Your task to perform on an android device: install app "Spotify" Image 0: 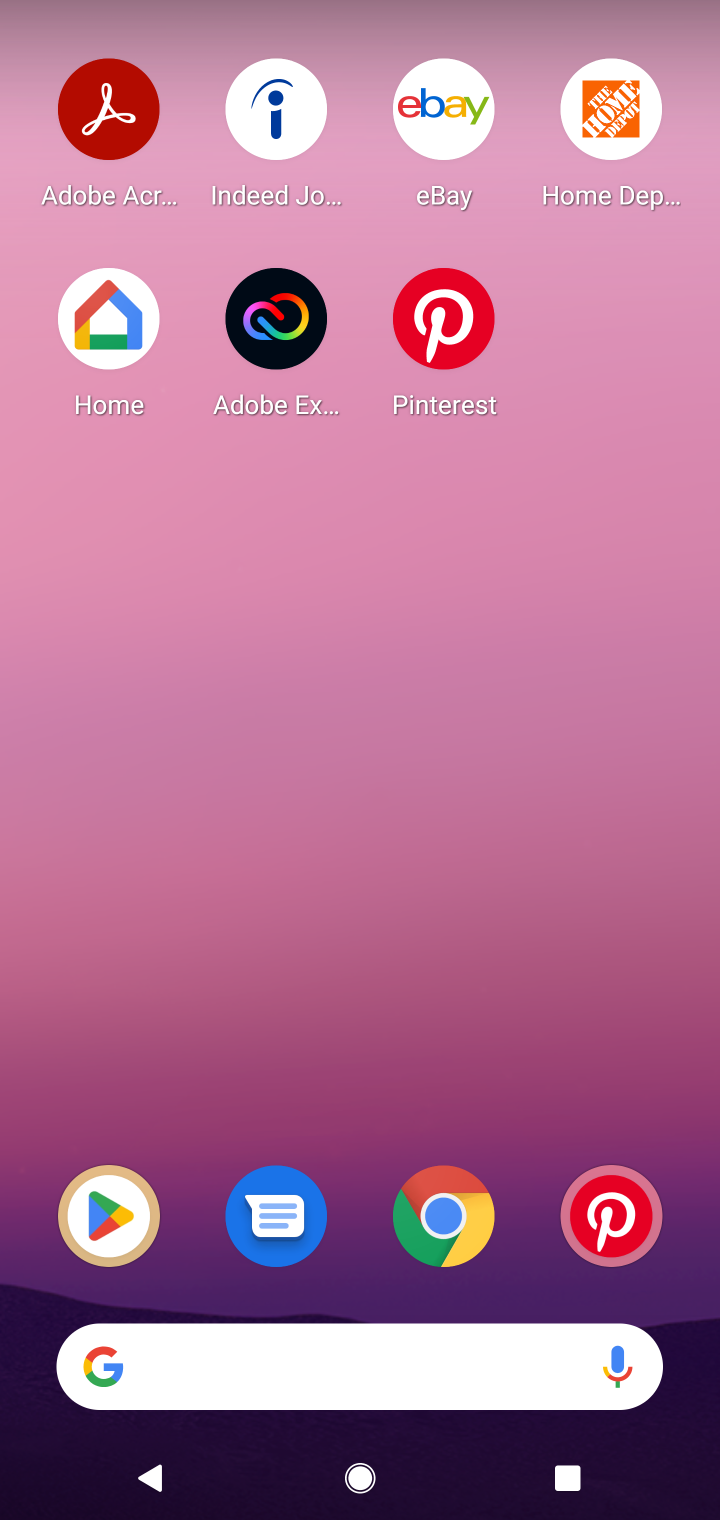
Step 0: click (101, 1259)
Your task to perform on an android device: install app "Spotify" Image 1: 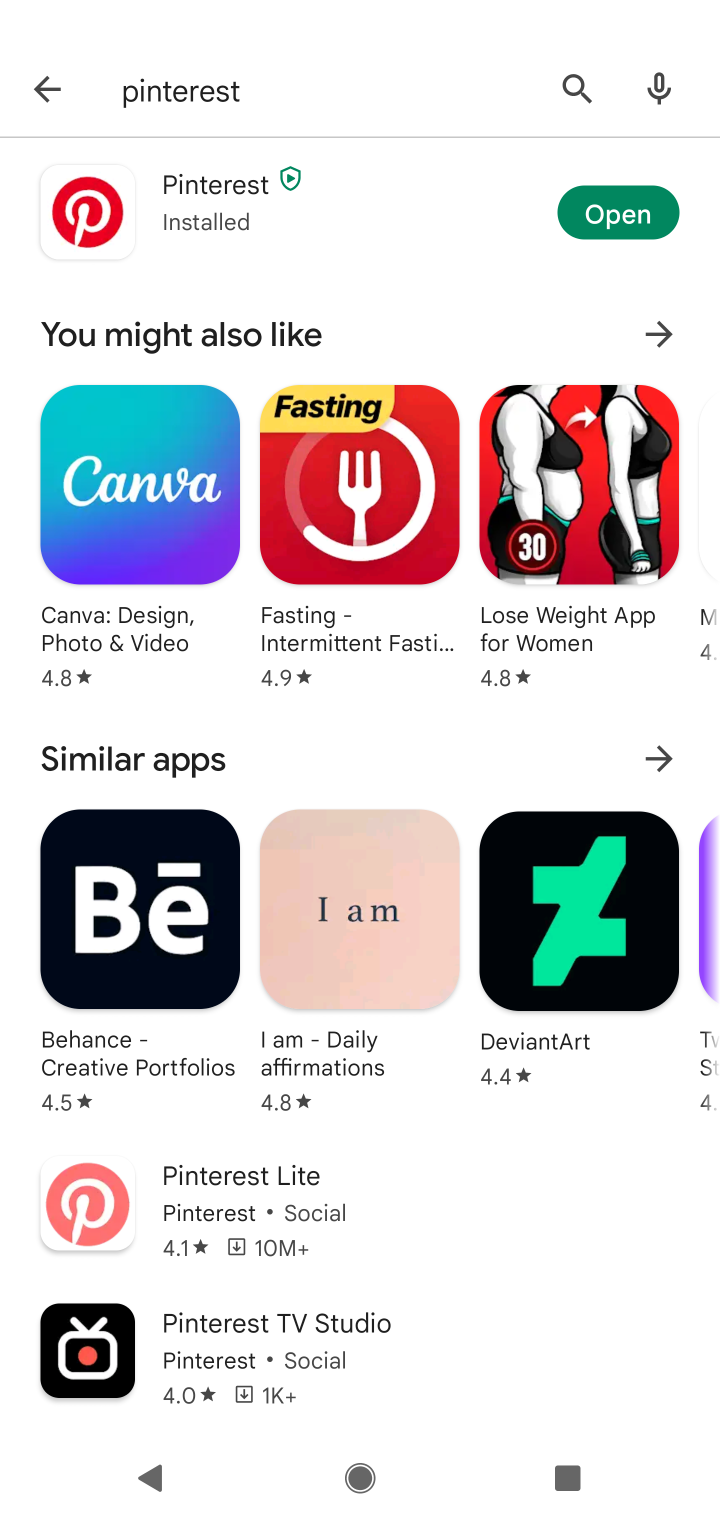
Step 1: click (587, 209)
Your task to perform on an android device: install app "Spotify" Image 2: 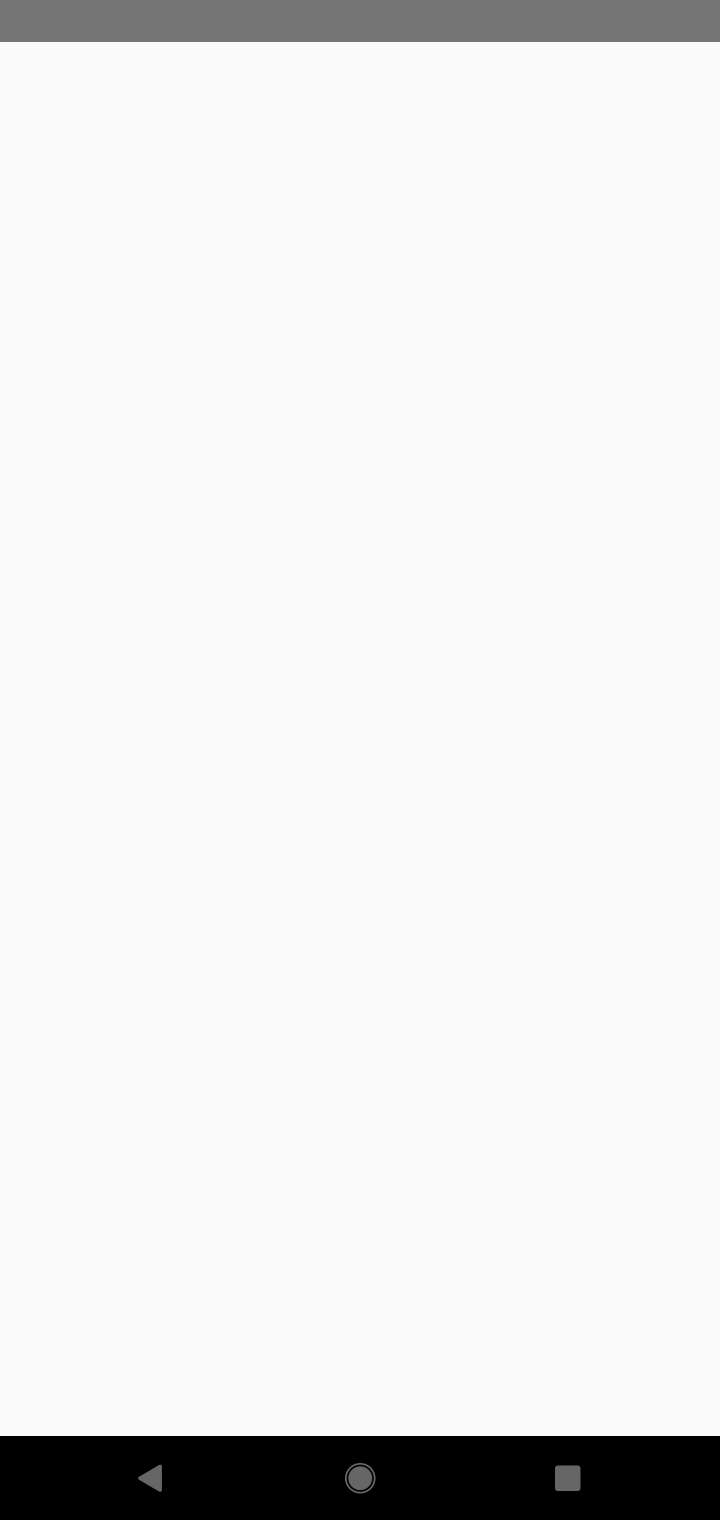
Step 2: press home button
Your task to perform on an android device: install app "Spotify" Image 3: 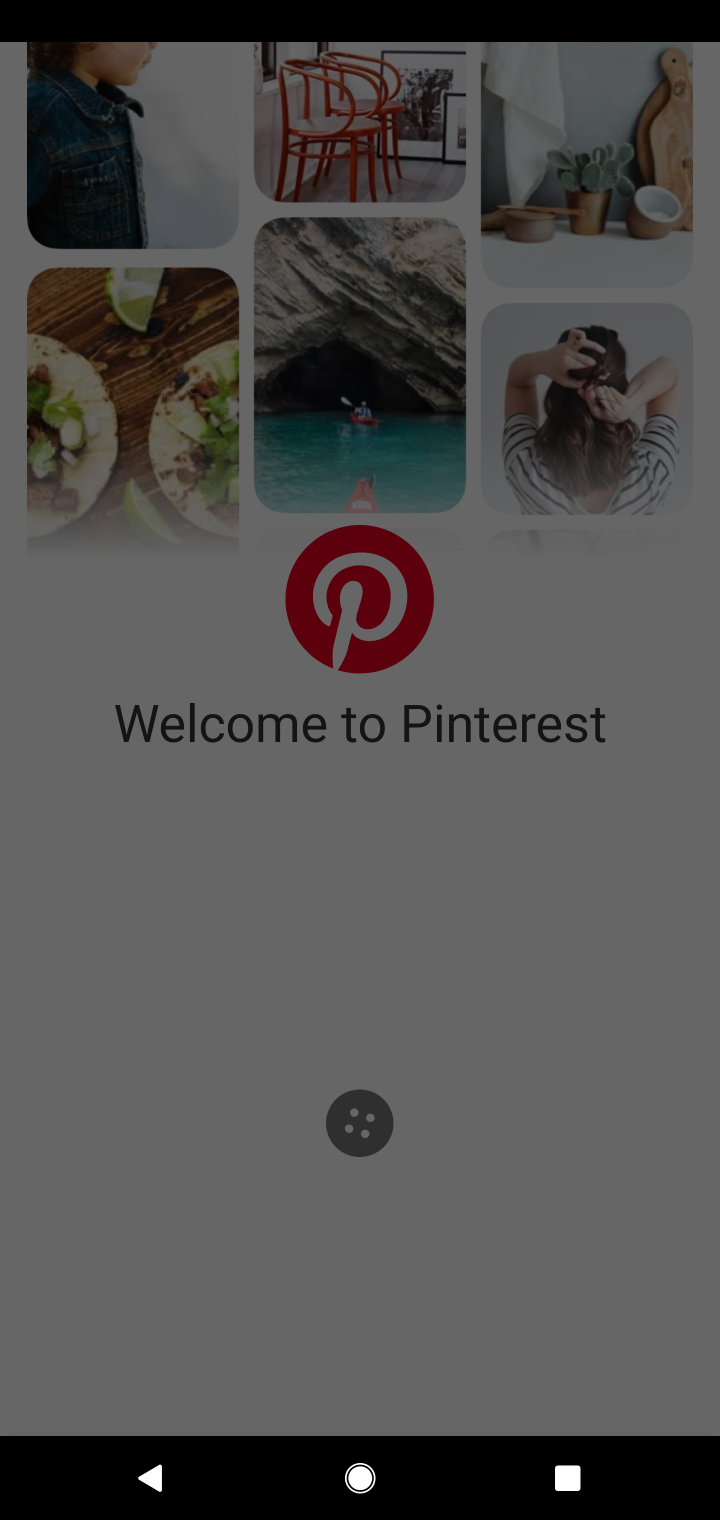
Step 3: click (349, 1284)
Your task to perform on an android device: install app "Spotify" Image 4: 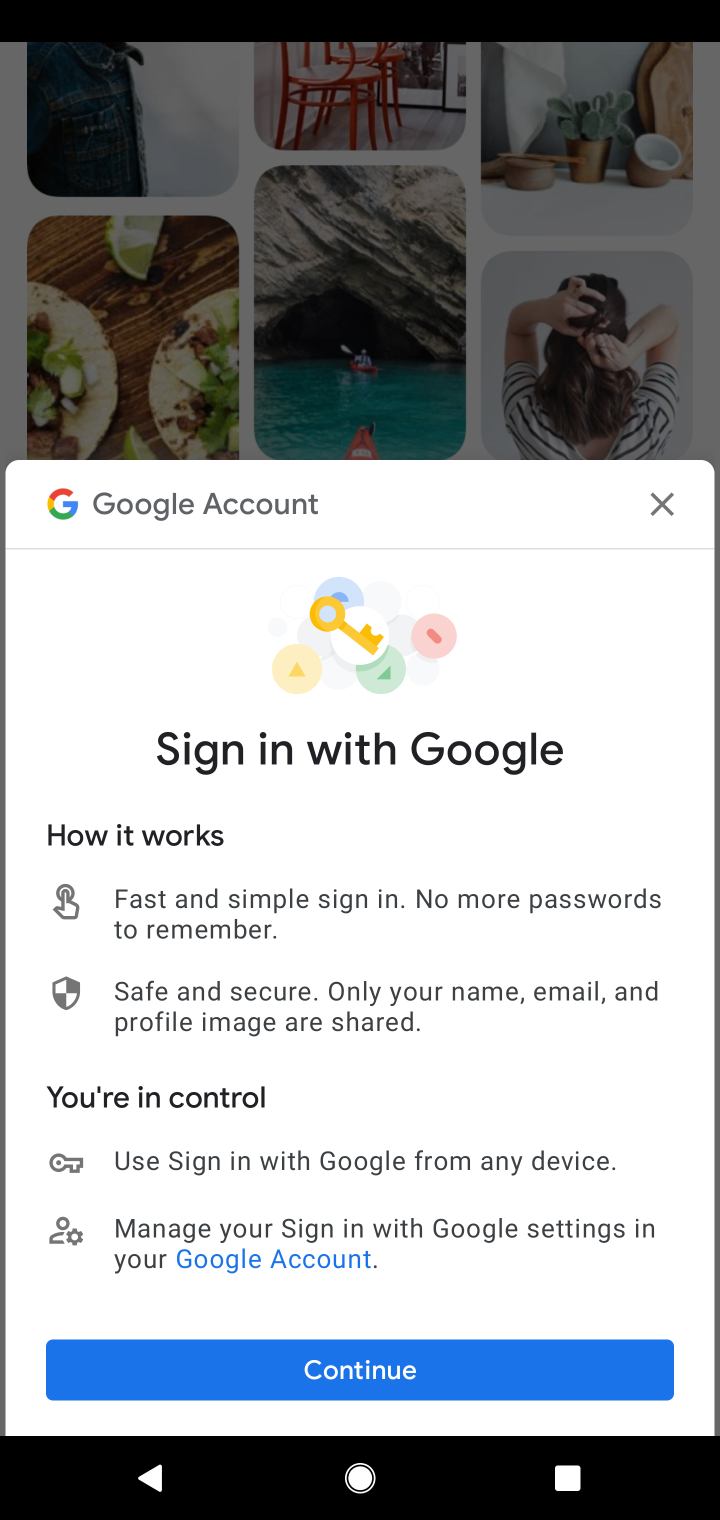
Step 4: press home button
Your task to perform on an android device: install app "Spotify" Image 5: 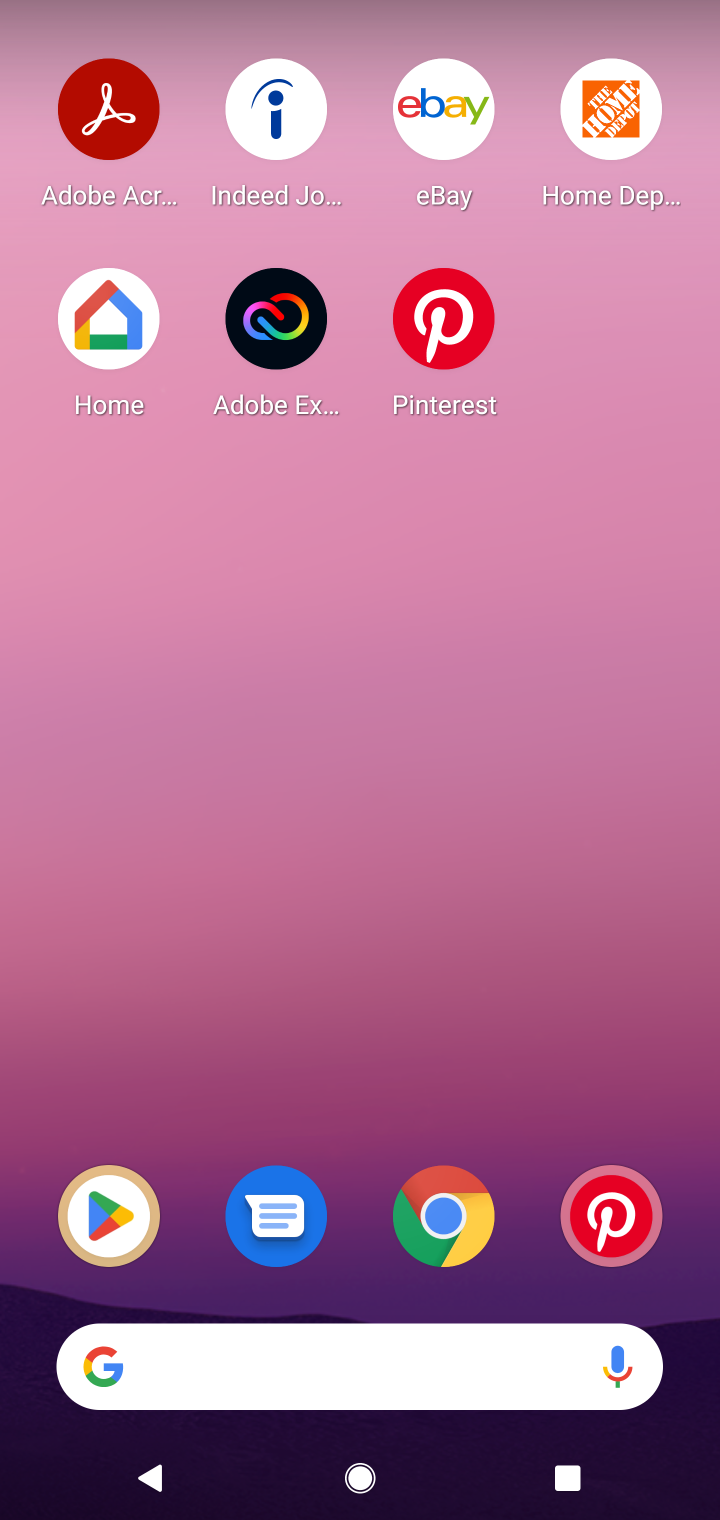
Step 5: click (104, 1260)
Your task to perform on an android device: install app "Spotify" Image 6: 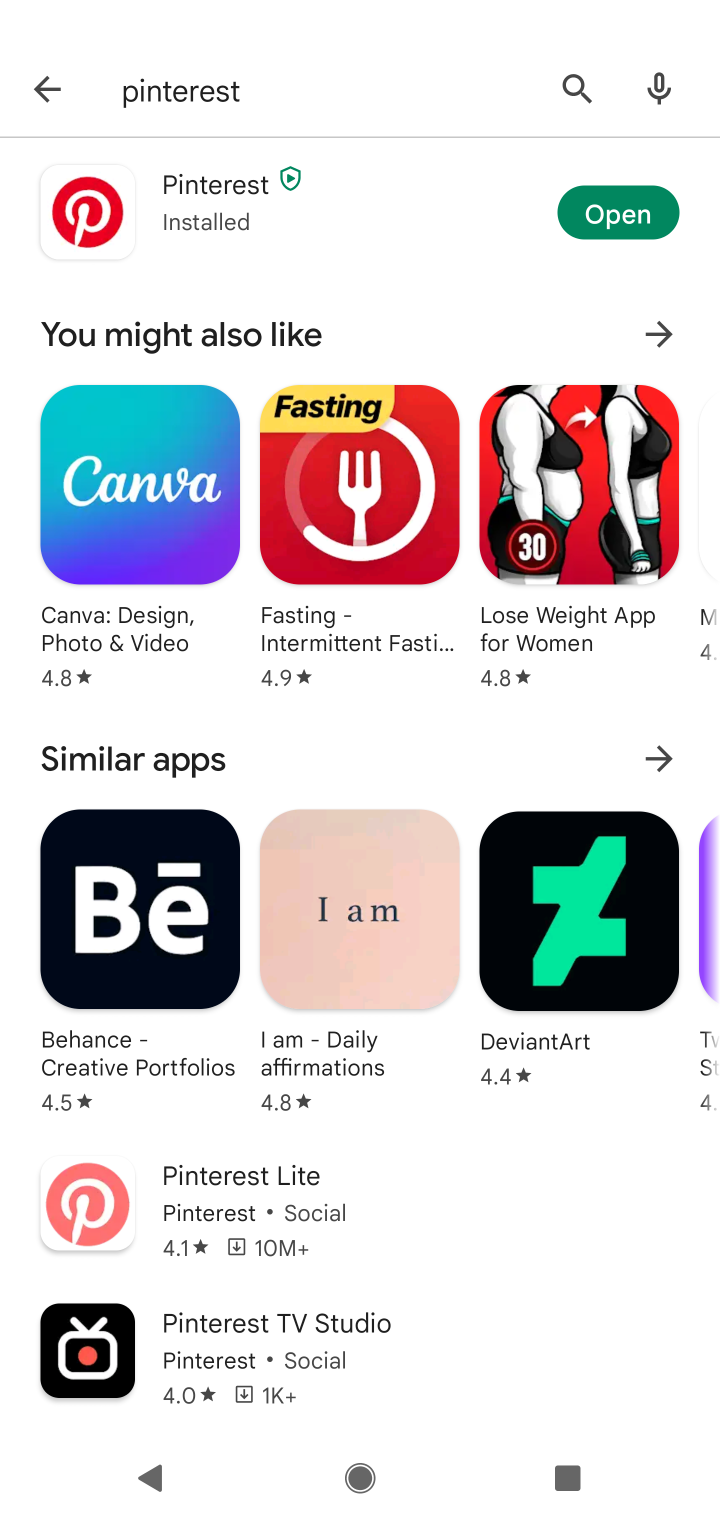
Step 6: click (559, 69)
Your task to perform on an android device: install app "Spotify" Image 7: 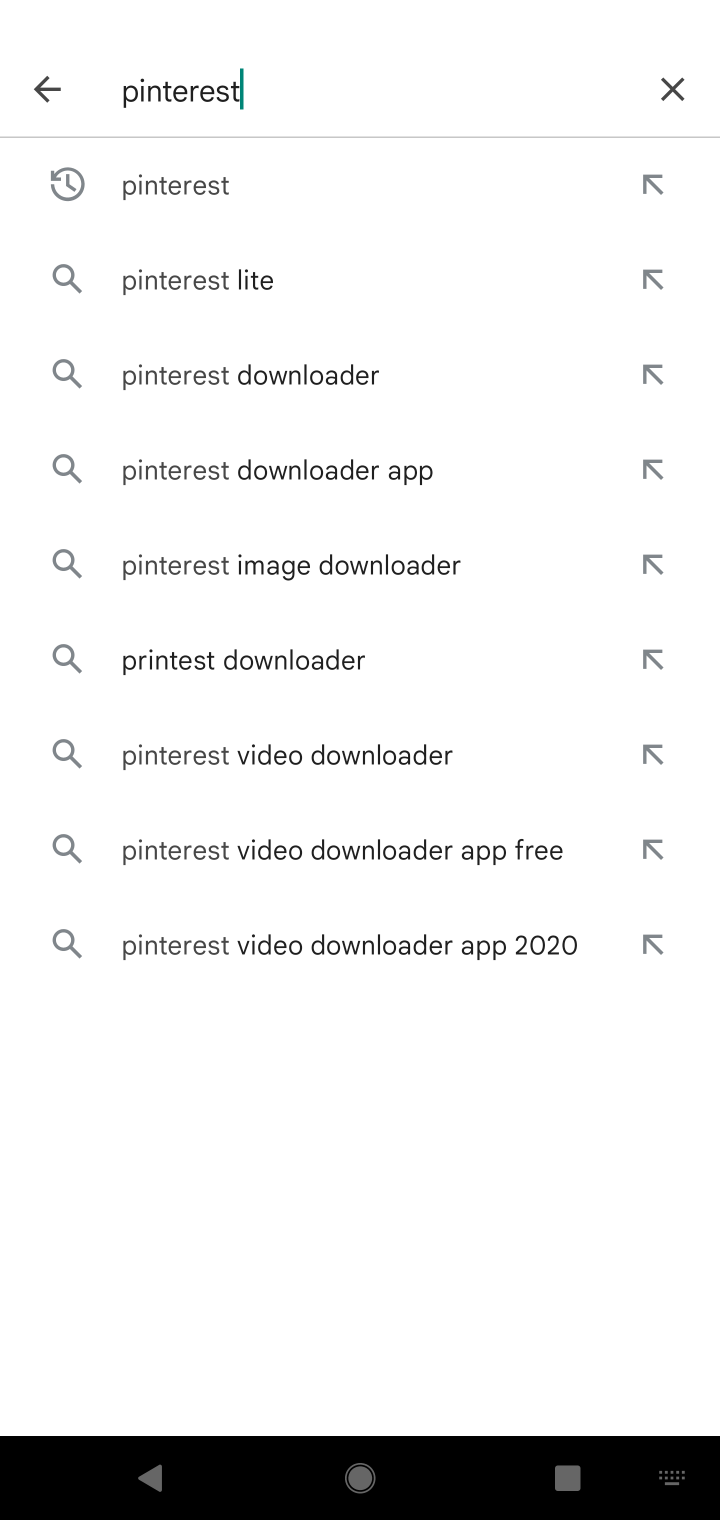
Step 7: click (689, 85)
Your task to perform on an android device: install app "Spotify" Image 8: 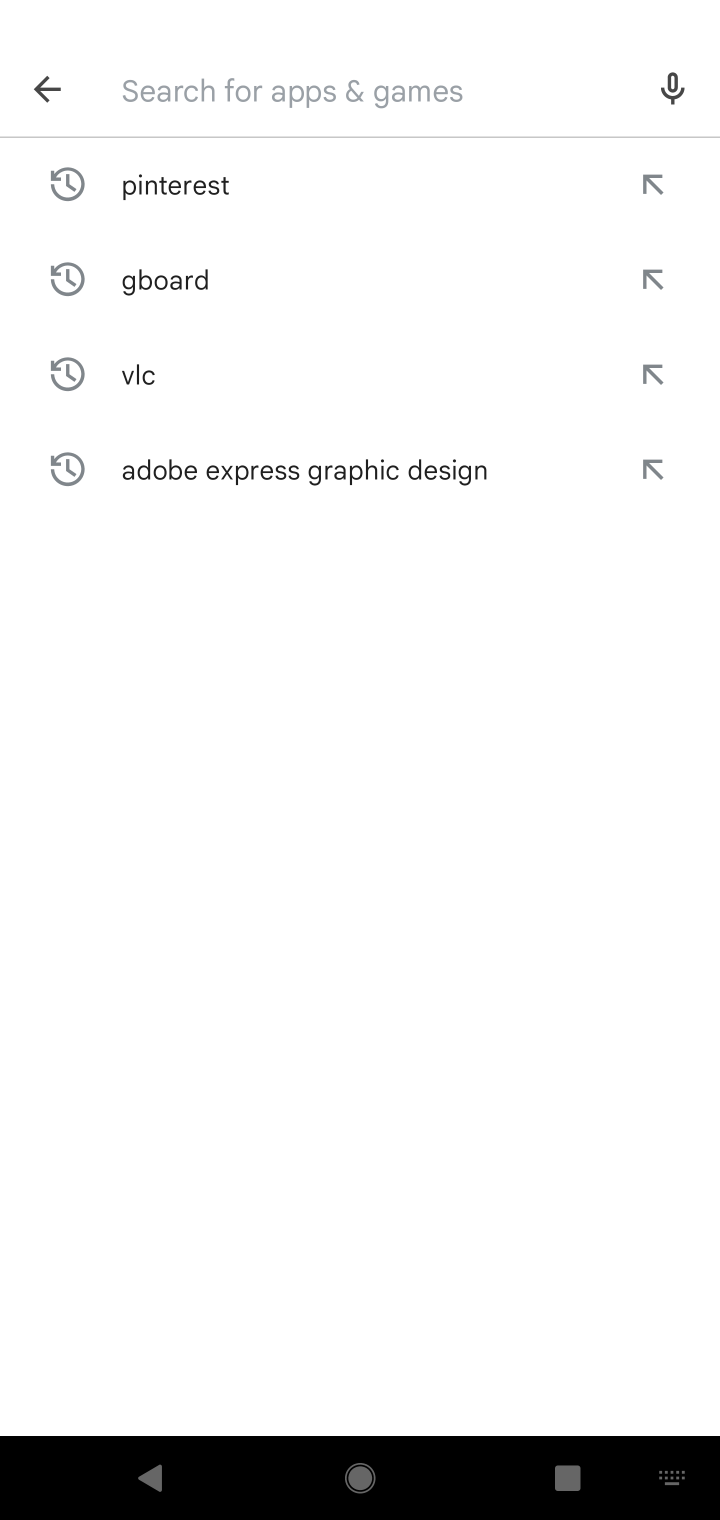
Step 8: type "spotifty"
Your task to perform on an android device: install app "Spotify" Image 9: 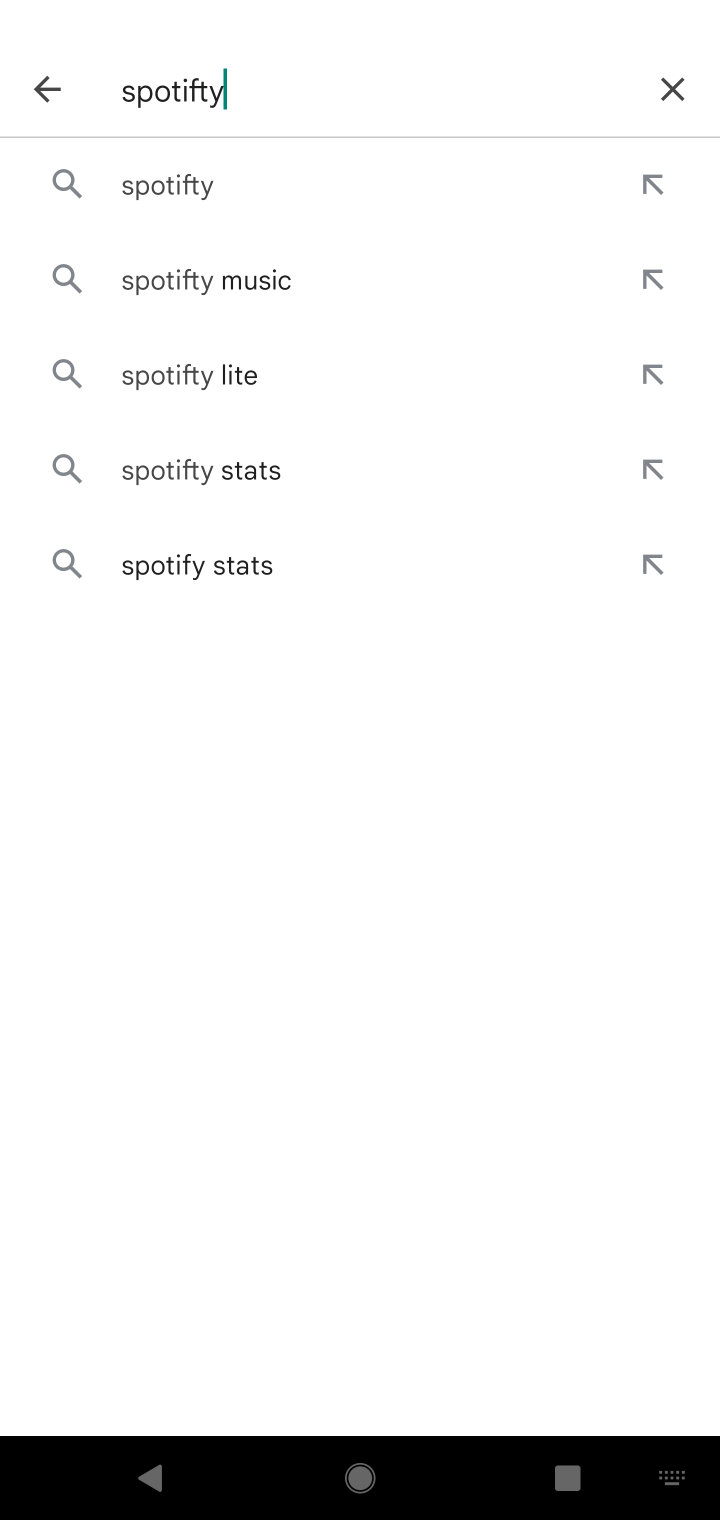
Step 9: click (233, 207)
Your task to perform on an android device: install app "Spotify" Image 10: 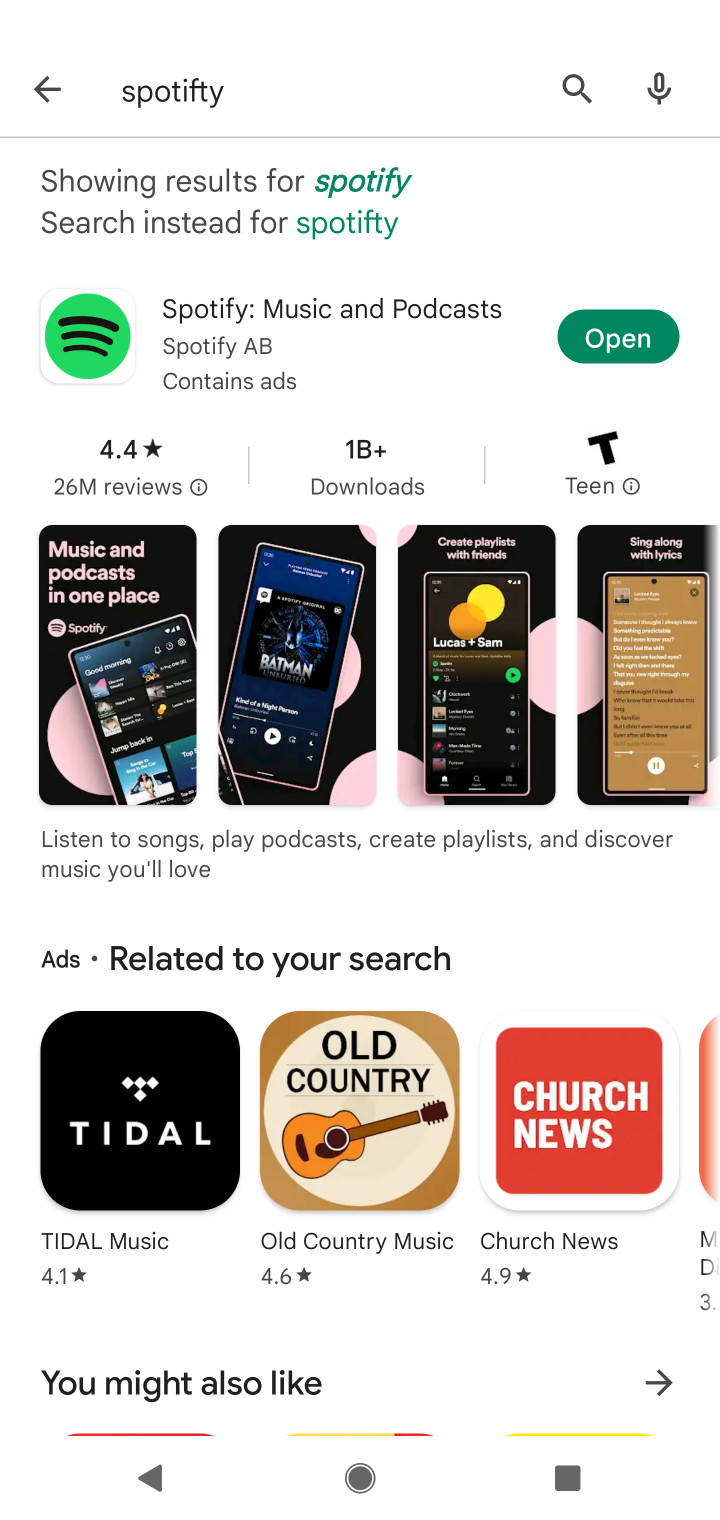
Step 10: click (612, 323)
Your task to perform on an android device: install app "Spotify" Image 11: 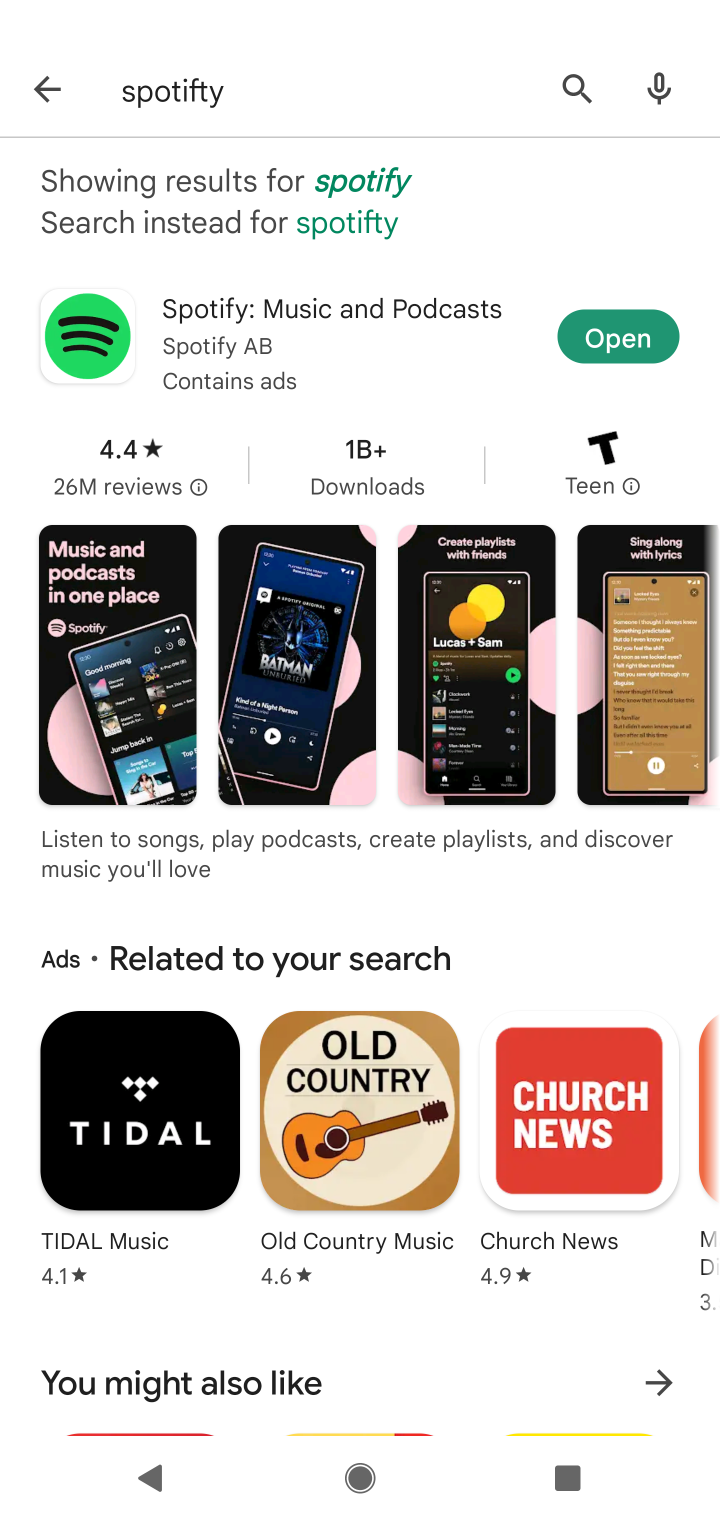
Step 11: task complete